Your task to perform on an android device: open chrome privacy settings Image 0: 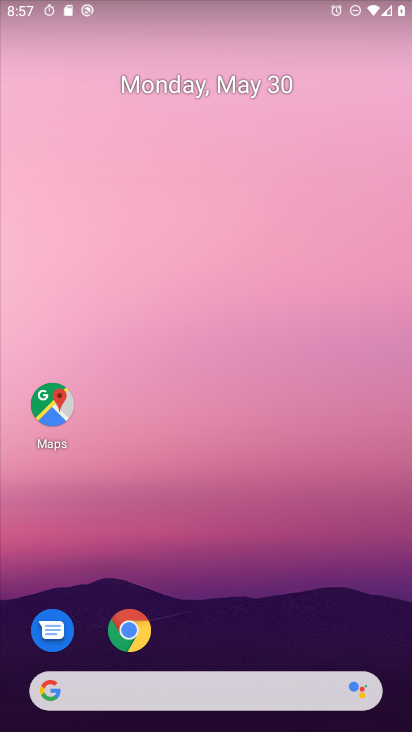
Step 0: drag from (341, 627) to (244, 94)
Your task to perform on an android device: open chrome privacy settings Image 1: 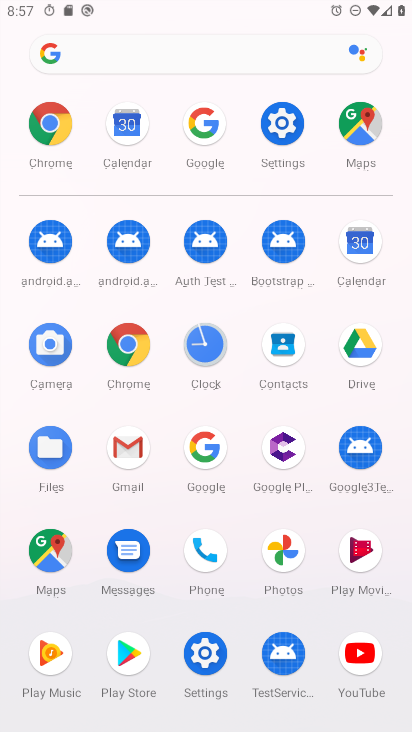
Step 1: click (206, 659)
Your task to perform on an android device: open chrome privacy settings Image 2: 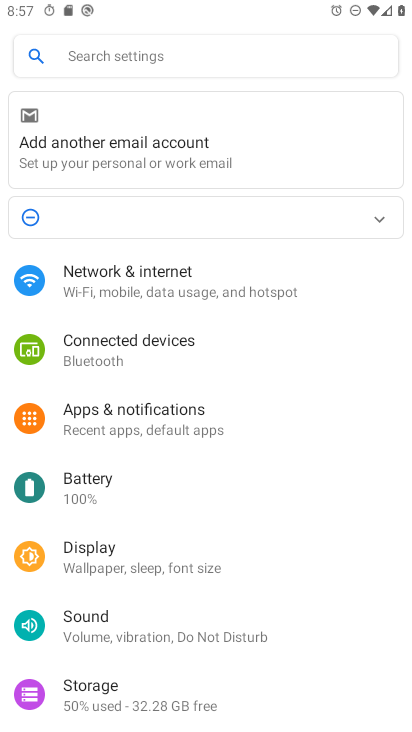
Step 2: press home button
Your task to perform on an android device: open chrome privacy settings Image 3: 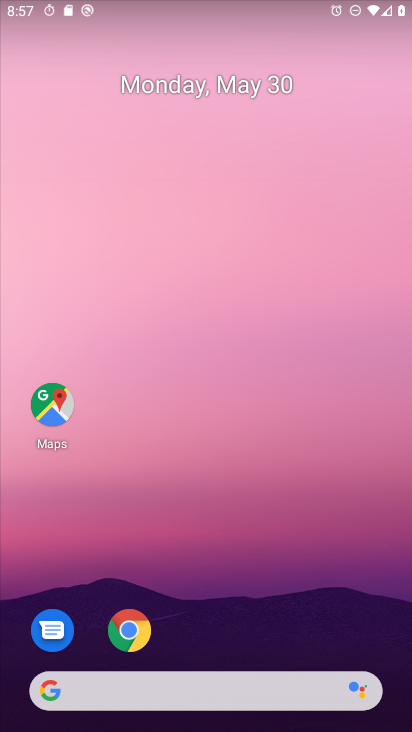
Step 3: click (125, 618)
Your task to perform on an android device: open chrome privacy settings Image 4: 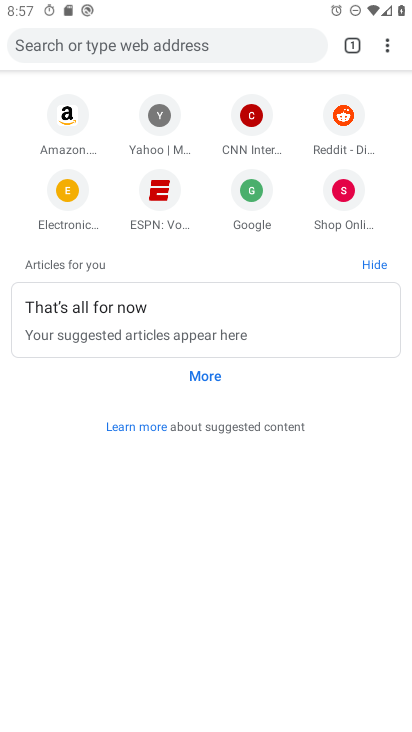
Step 4: click (392, 42)
Your task to perform on an android device: open chrome privacy settings Image 5: 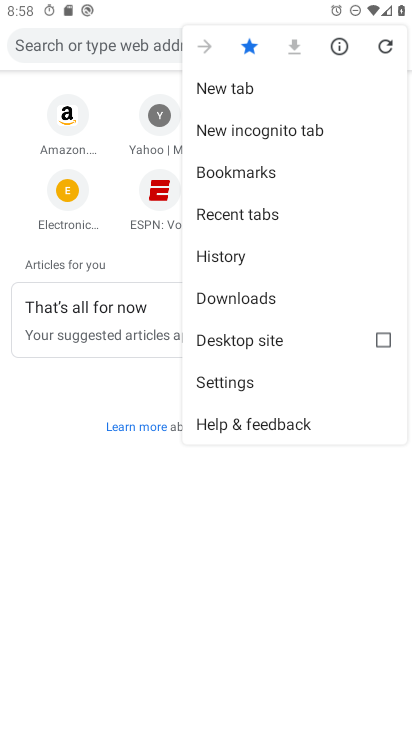
Step 5: click (257, 379)
Your task to perform on an android device: open chrome privacy settings Image 6: 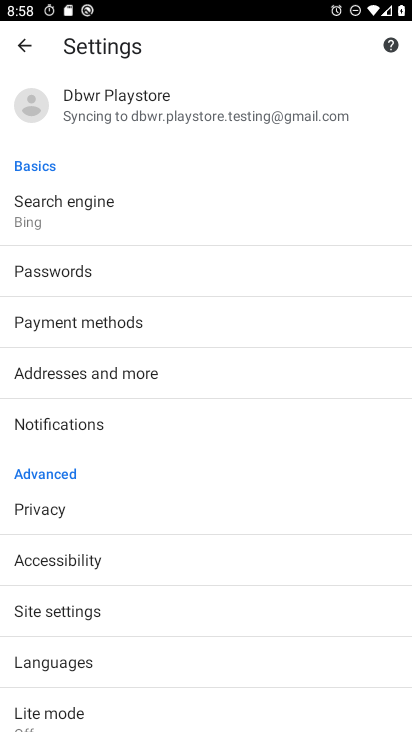
Step 6: click (110, 518)
Your task to perform on an android device: open chrome privacy settings Image 7: 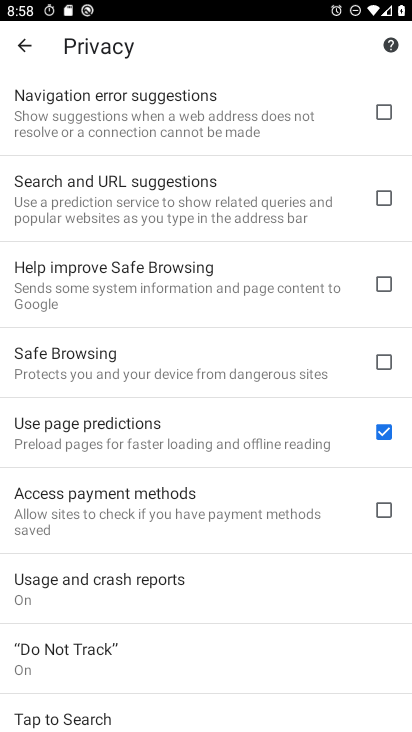
Step 7: task complete